Your task to perform on an android device: turn off sleep mode Image 0: 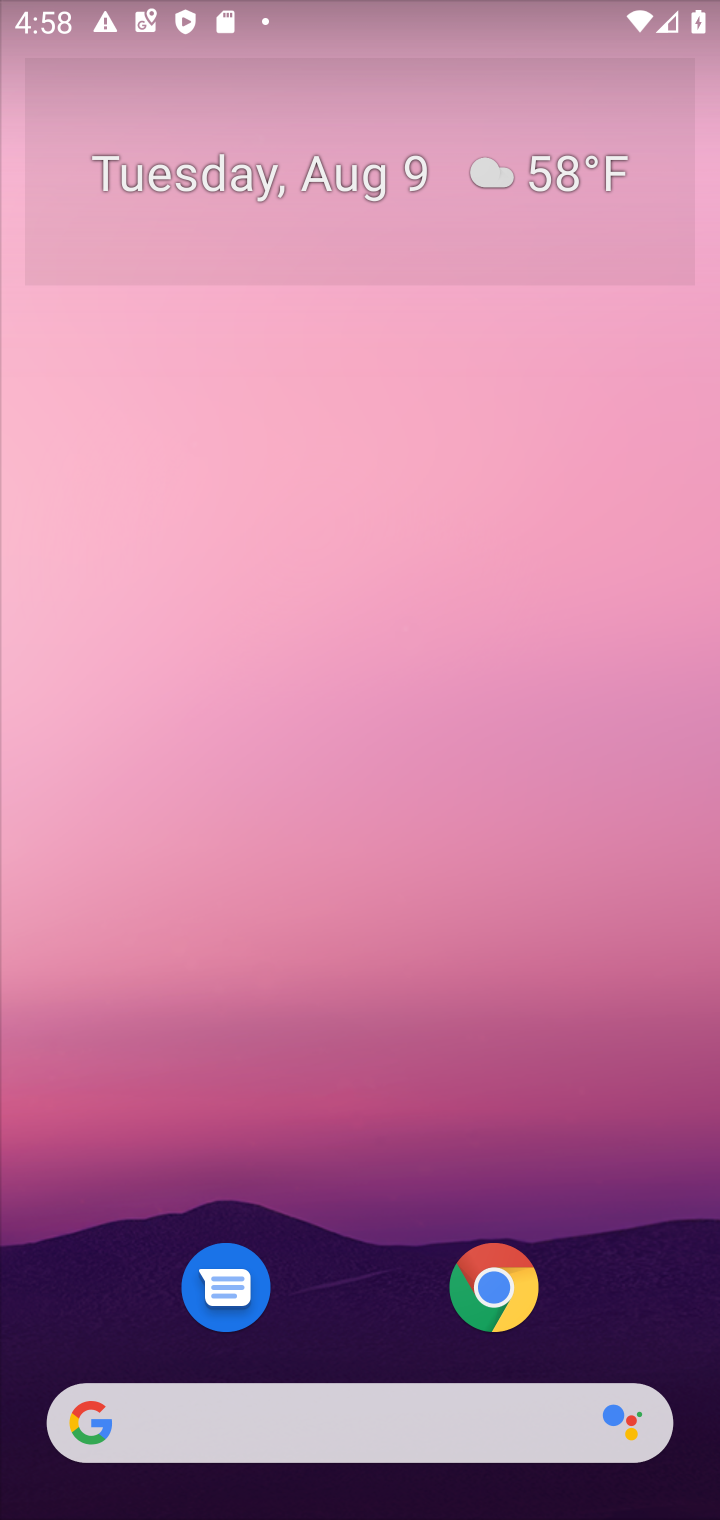
Step 0: drag from (427, 1114) to (457, 108)
Your task to perform on an android device: turn off sleep mode Image 1: 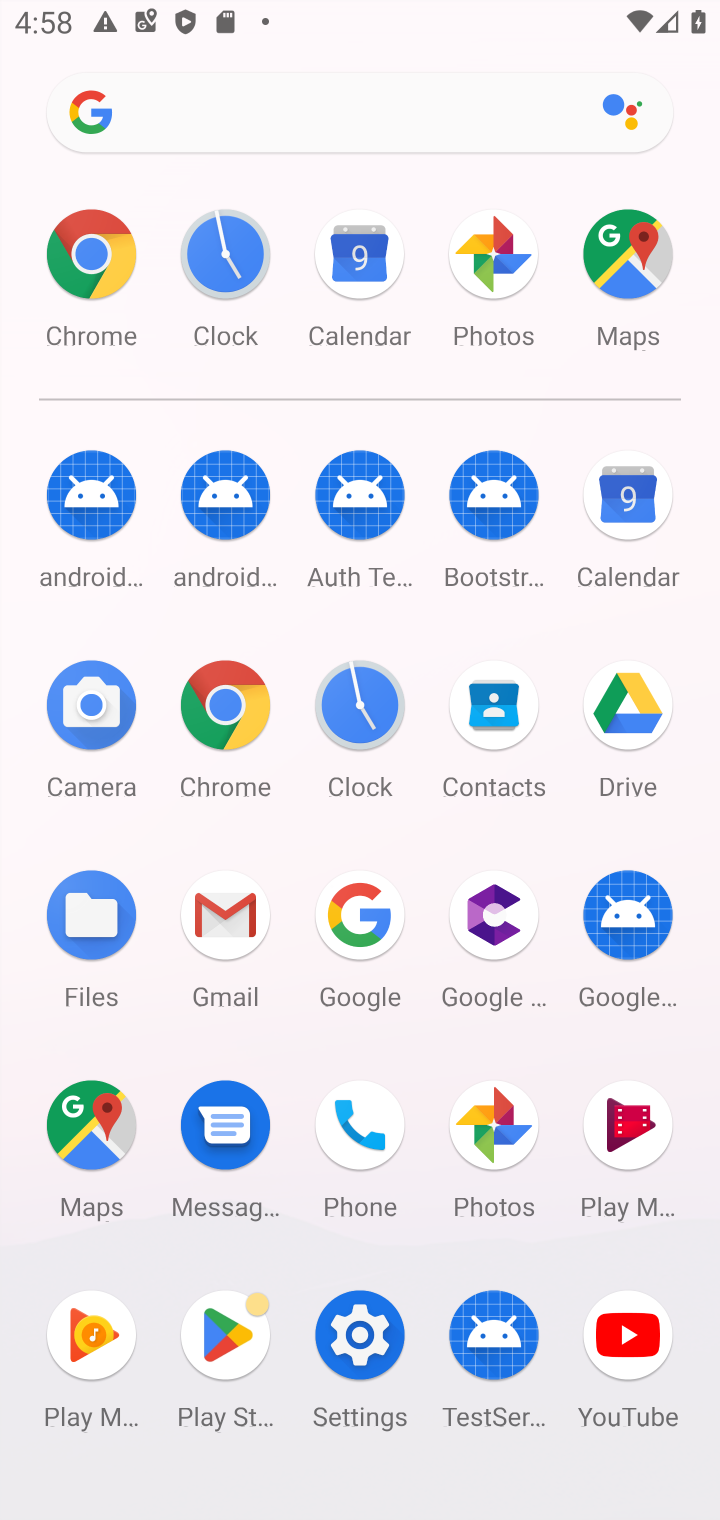
Step 1: click (342, 1301)
Your task to perform on an android device: turn off sleep mode Image 2: 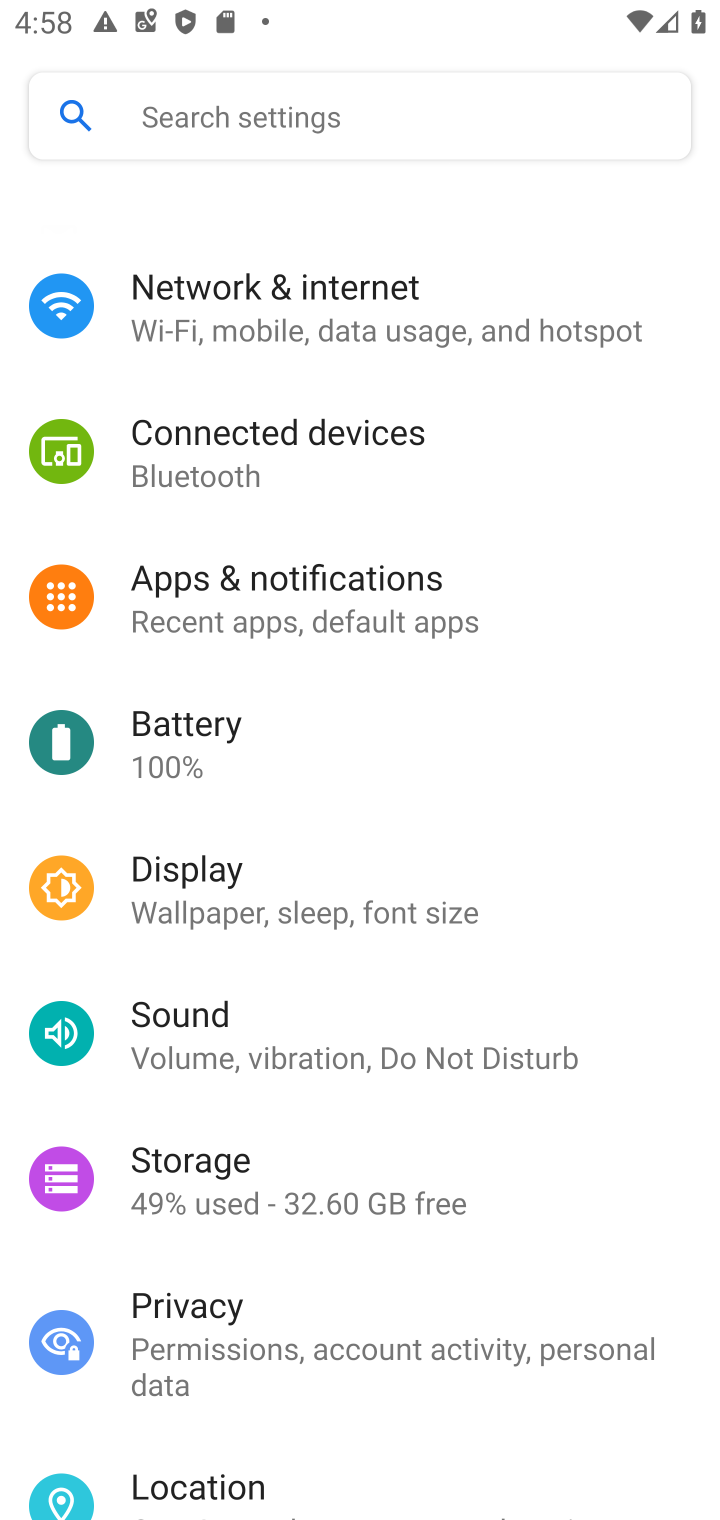
Step 2: task complete